Your task to perform on an android device: Show me productivity apps on the Play Store Image 0: 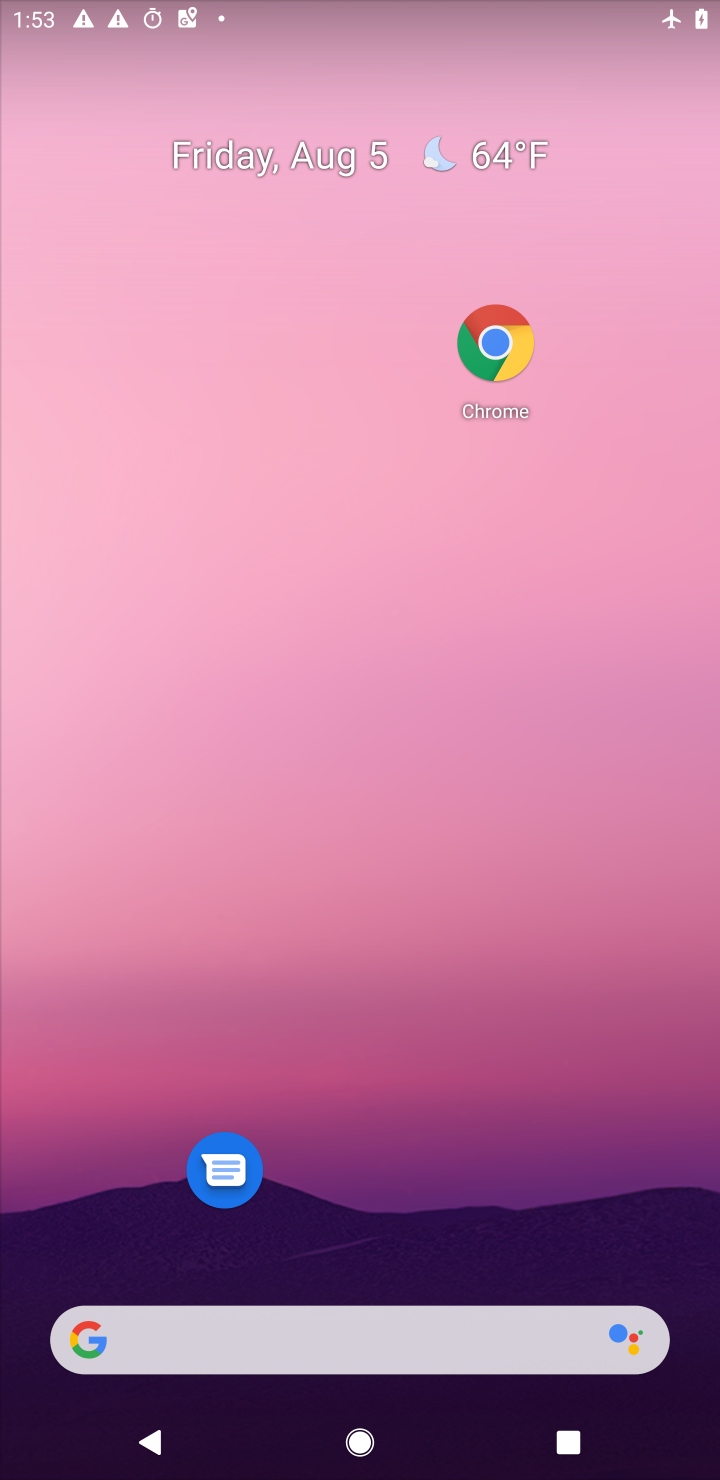
Step 0: drag from (384, 1207) to (349, 179)
Your task to perform on an android device: Show me productivity apps on the Play Store Image 1: 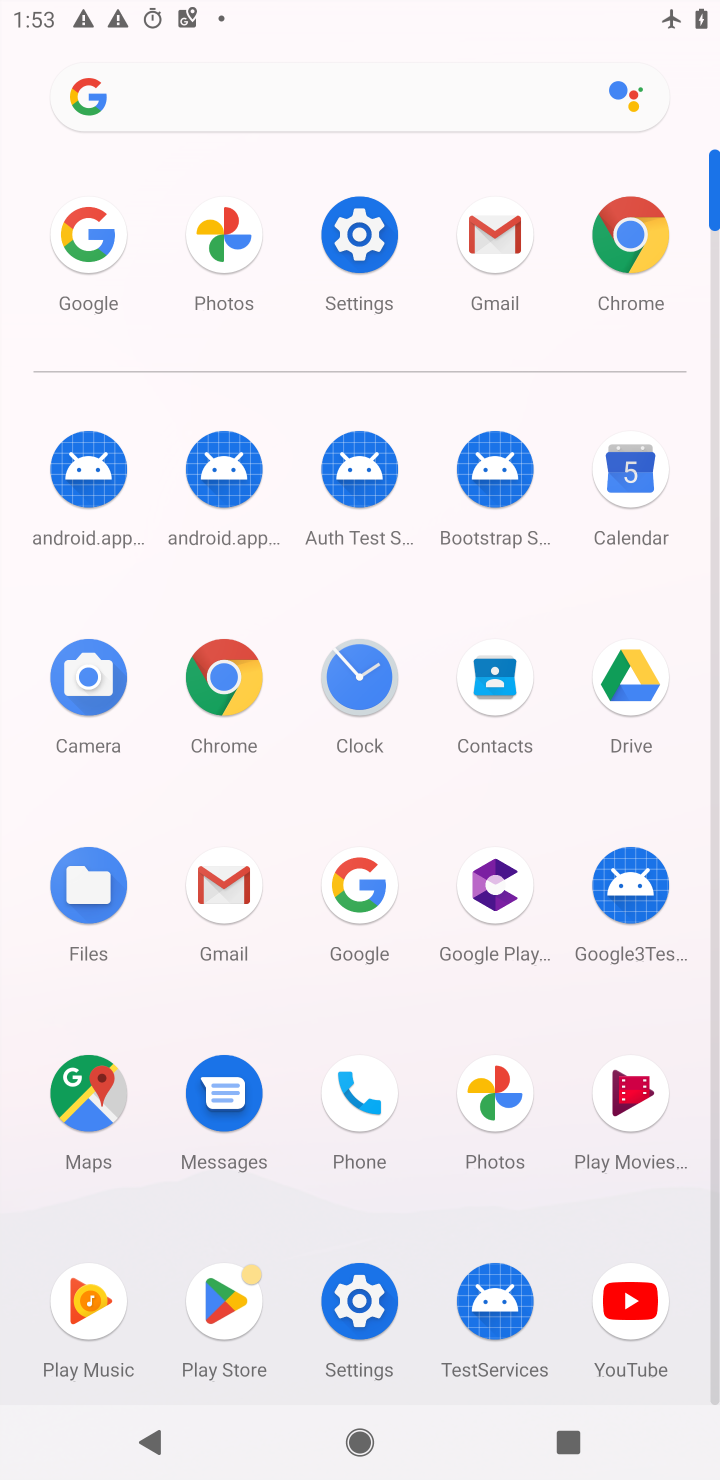
Step 1: click (211, 1299)
Your task to perform on an android device: Show me productivity apps on the Play Store Image 2: 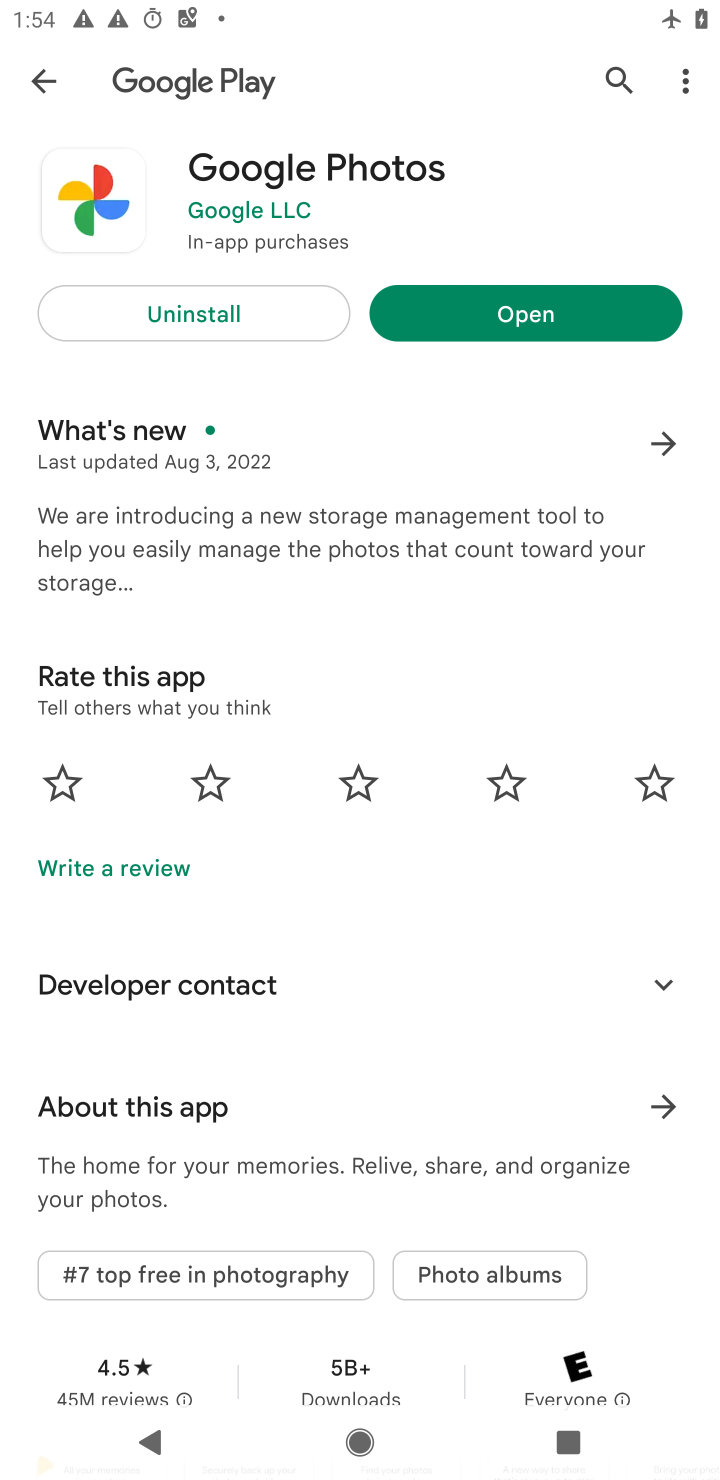
Step 2: press back button
Your task to perform on an android device: Show me productivity apps on the Play Store Image 3: 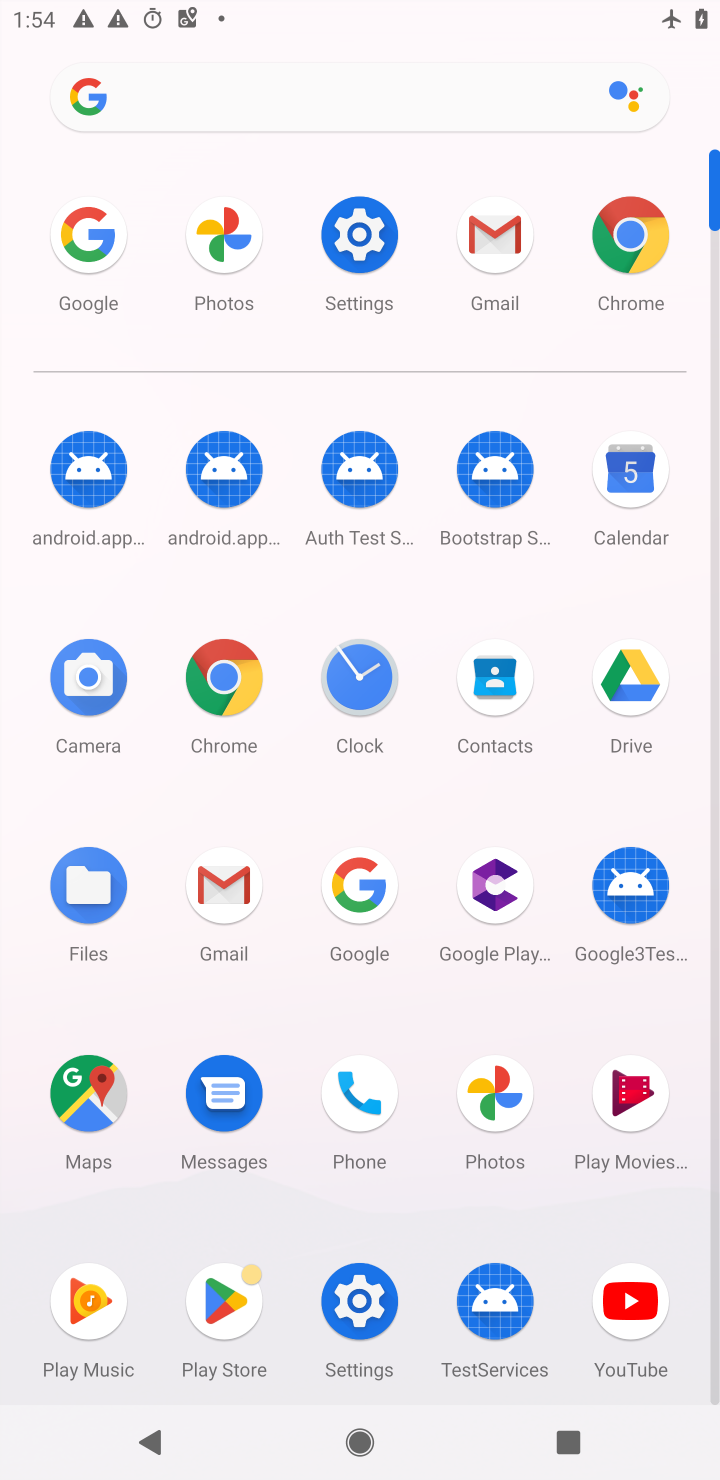
Step 3: click (233, 1311)
Your task to perform on an android device: Show me productivity apps on the Play Store Image 4: 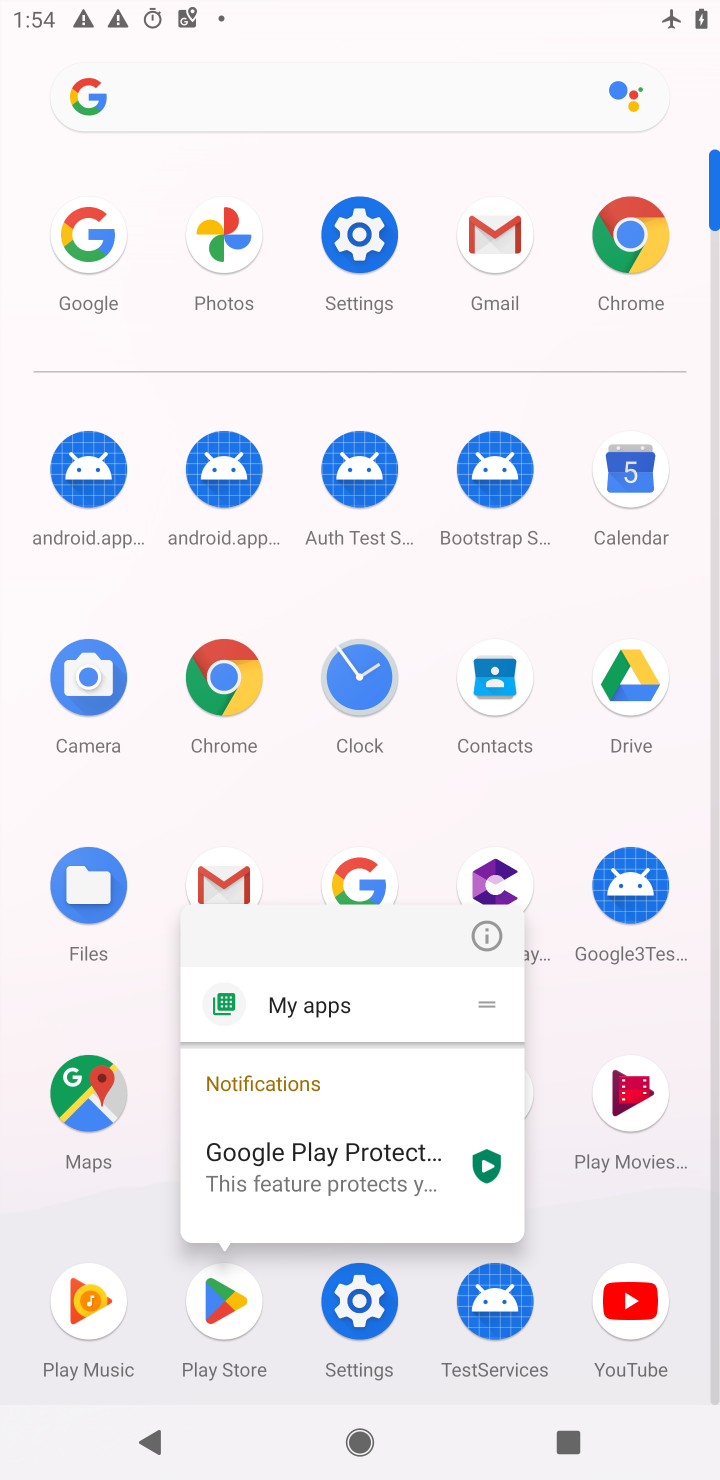
Step 4: click (213, 1289)
Your task to perform on an android device: Show me productivity apps on the Play Store Image 5: 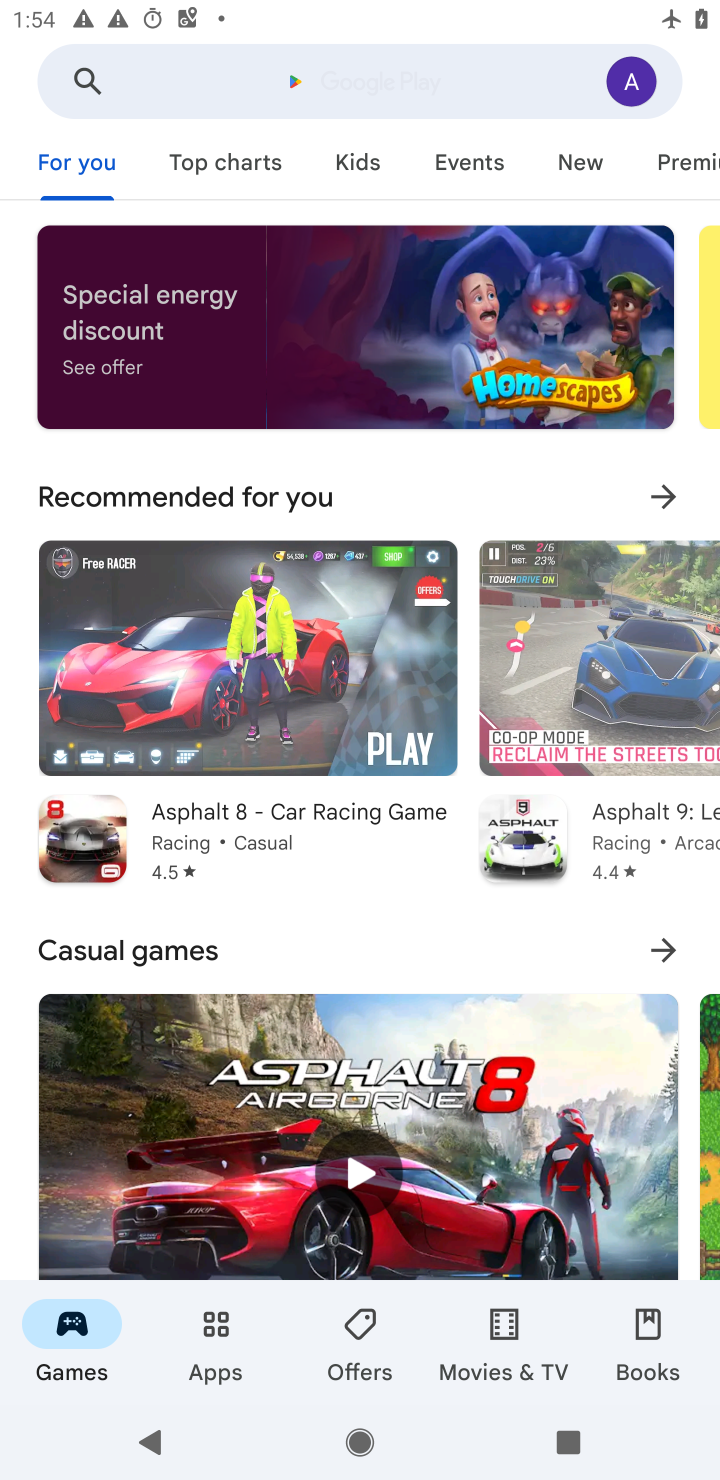
Step 5: click (406, 78)
Your task to perform on an android device: Show me productivity apps on the Play Store Image 6: 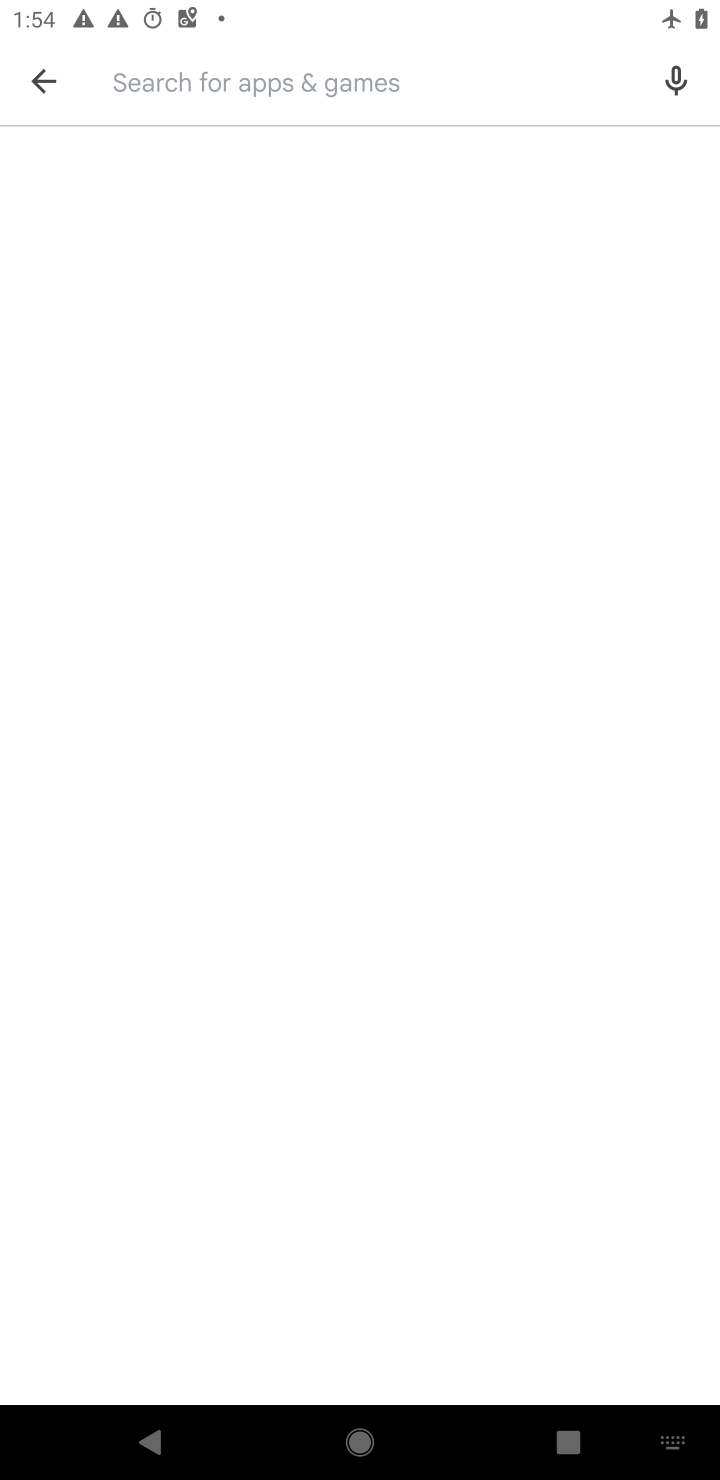
Step 6: click (406, 78)
Your task to perform on an android device: Show me productivity apps on the Play Store Image 7: 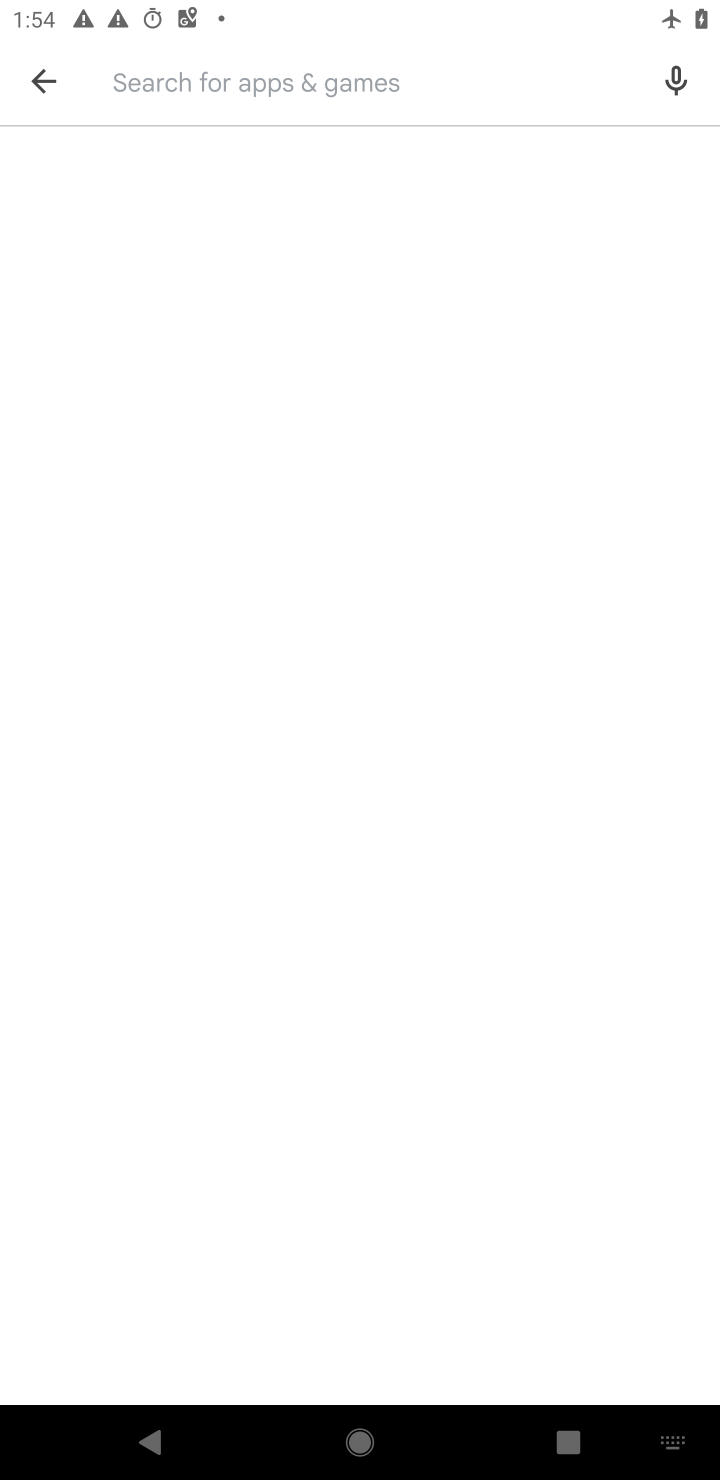
Step 7: type "productivity apps"
Your task to perform on an android device: Show me productivity apps on the Play Store Image 8: 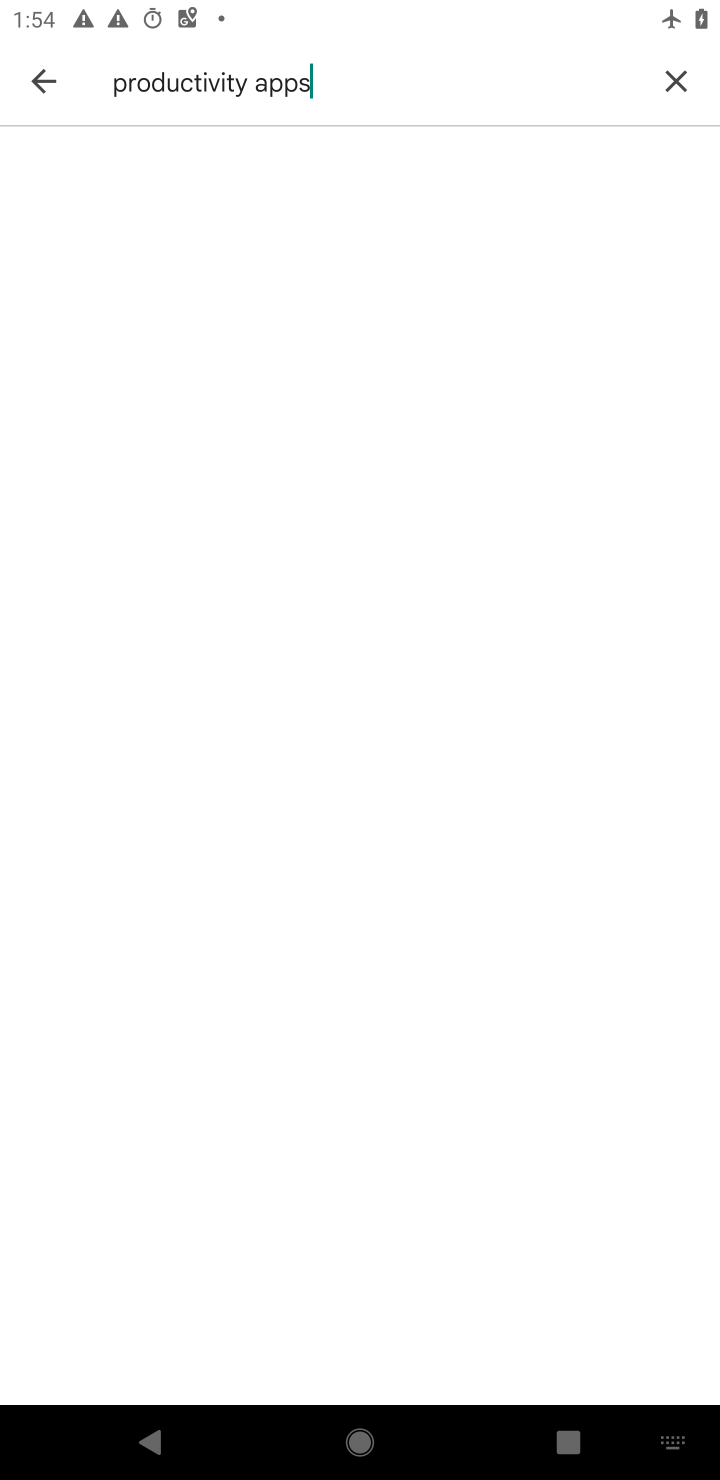
Step 8: type ""
Your task to perform on an android device: Show me productivity apps on the Play Store Image 9: 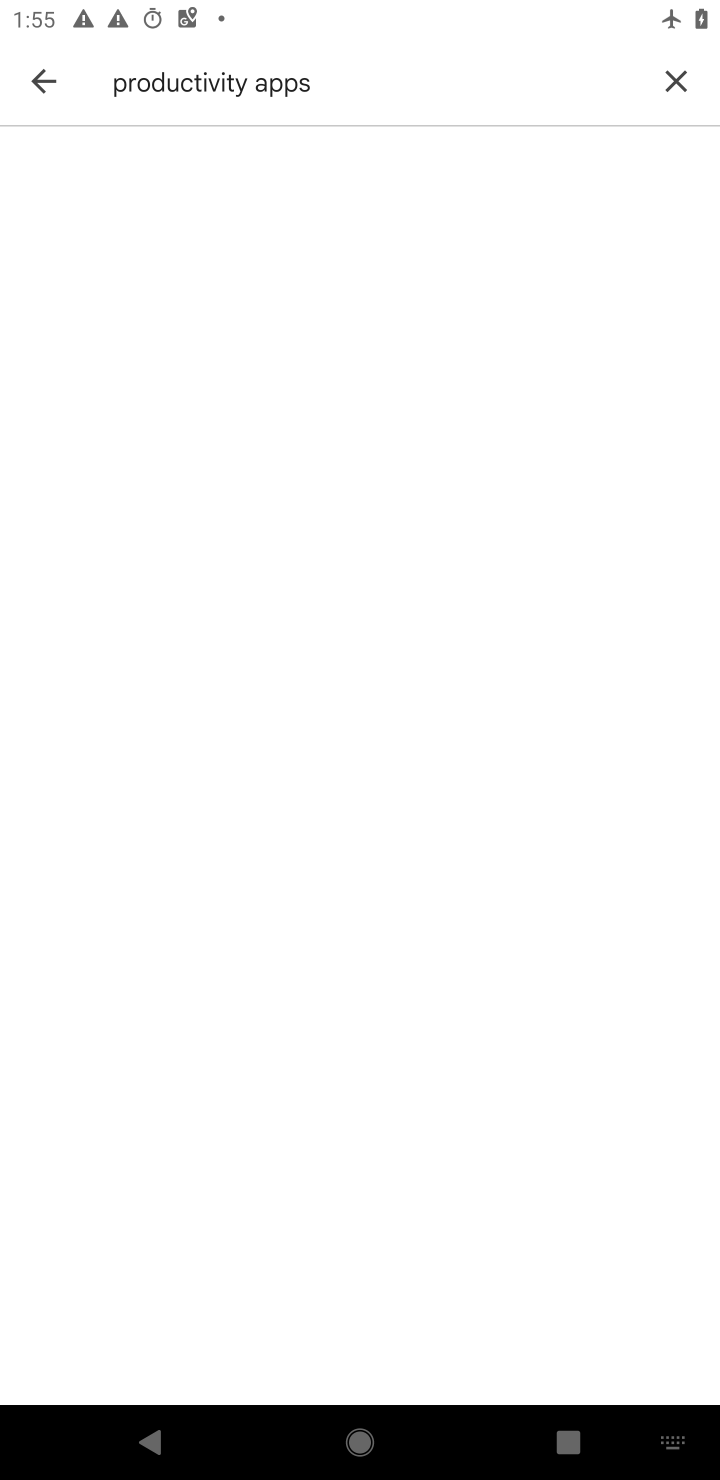
Step 9: task complete